Your task to perform on an android device: move a message to another label in the gmail app Image 0: 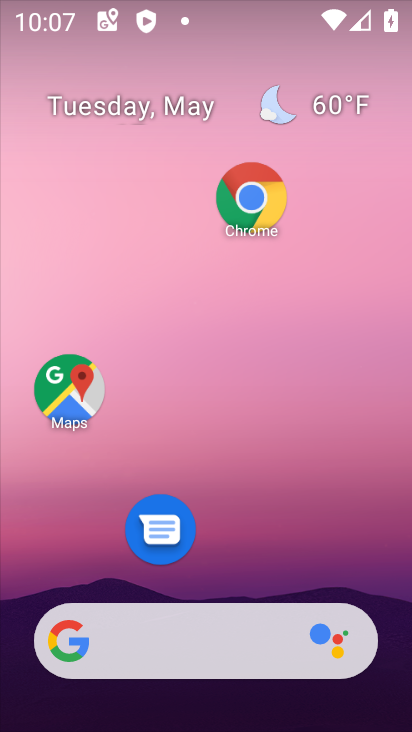
Step 0: drag from (197, 606) to (188, 184)
Your task to perform on an android device: move a message to another label in the gmail app Image 1: 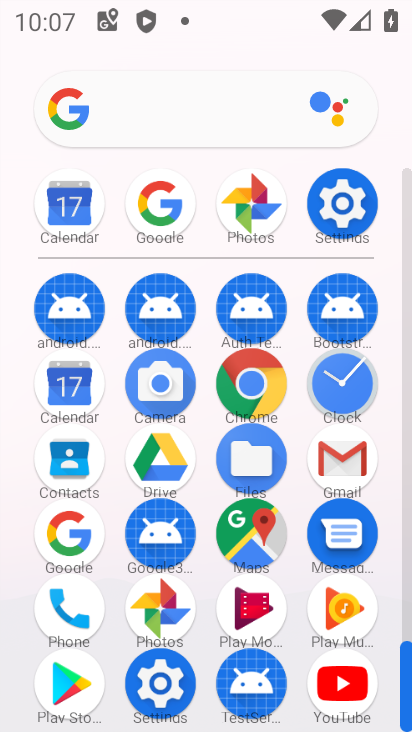
Step 1: click (351, 447)
Your task to perform on an android device: move a message to another label in the gmail app Image 2: 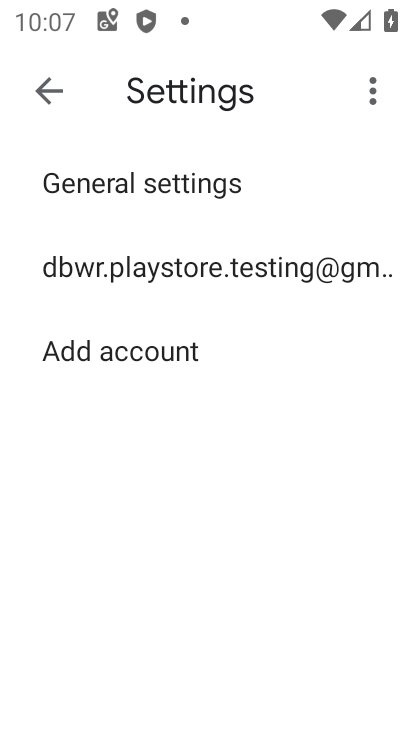
Step 2: click (57, 92)
Your task to perform on an android device: move a message to another label in the gmail app Image 3: 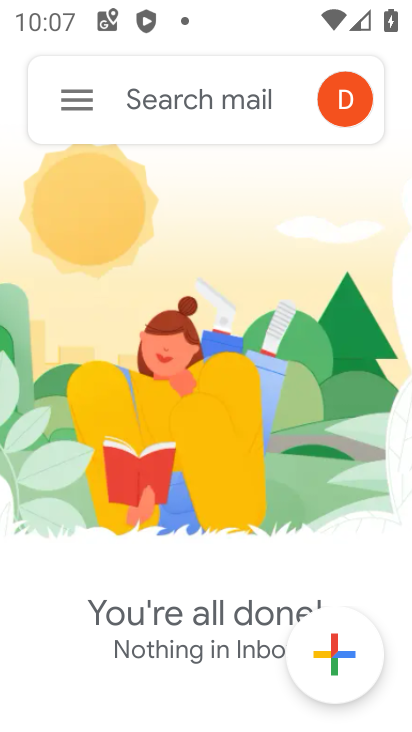
Step 3: task complete